Your task to perform on an android device: move an email to a new category in the gmail app Image 0: 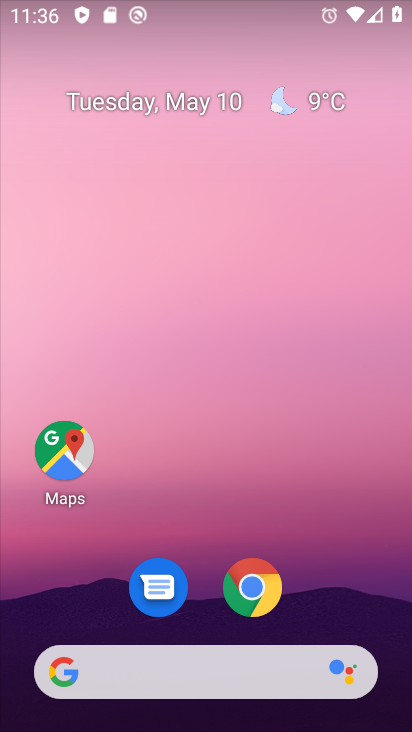
Step 0: drag from (344, 545) to (388, 7)
Your task to perform on an android device: move an email to a new category in the gmail app Image 1: 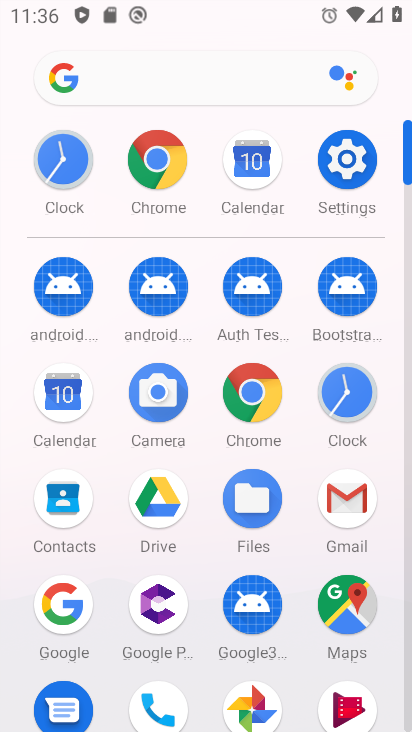
Step 1: click (326, 499)
Your task to perform on an android device: move an email to a new category in the gmail app Image 2: 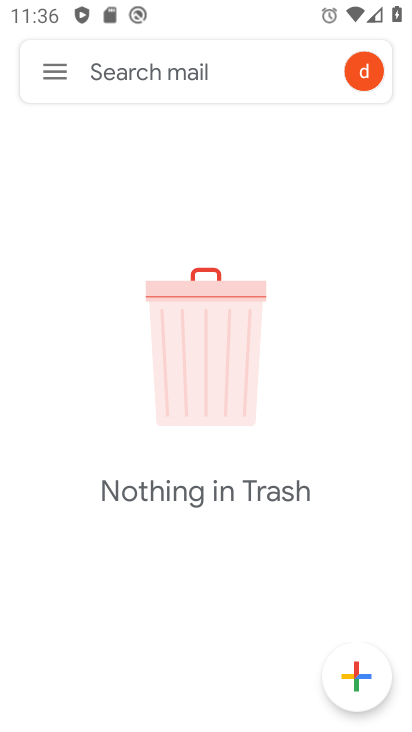
Step 2: click (47, 72)
Your task to perform on an android device: move an email to a new category in the gmail app Image 3: 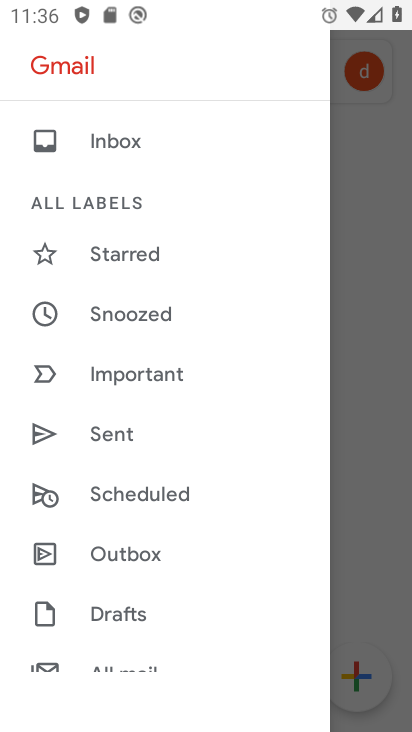
Step 3: drag from (198, 541) to (198, 271)
Your task to perform on an android device: move an email to a new category in the gmail app Image 4: 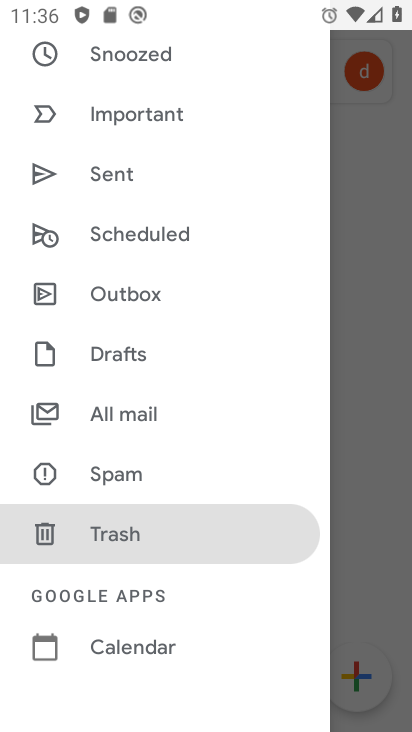
Step 4: click (134, 417)
Your task to perform on an android device: move an email to a new category in the gmail app Image 5: 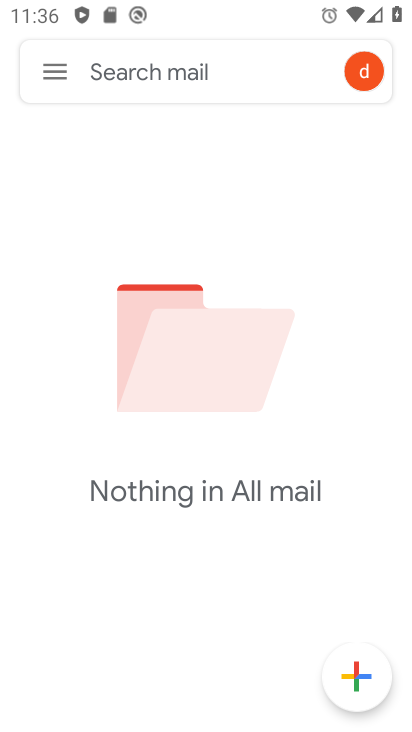
Step 5: task complete